Your task to perform on an android device: add a contact in the contacts app Image 0: 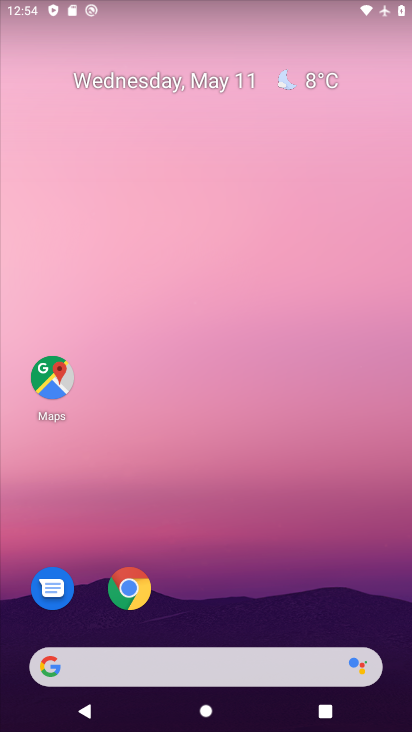
Step 0: drag from (318, 548) to (364, 270)
Your task to perform on an android device: add a contact in the contacts app Image 1: 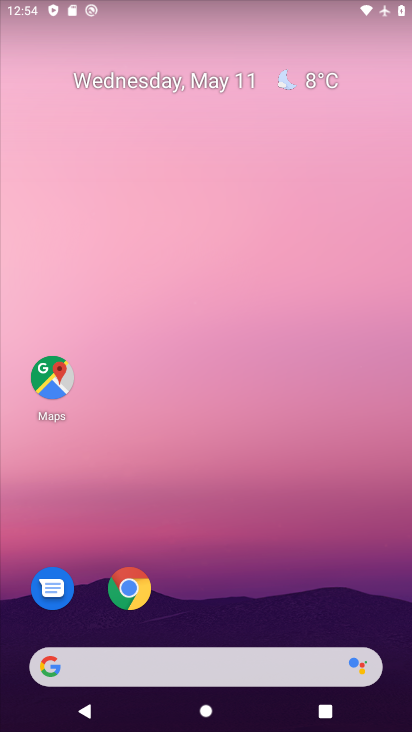
Step 1: drag from (221, 587) to (238, 167)
Your task to perform on an android device: add a contact in the contacts app Image 2: 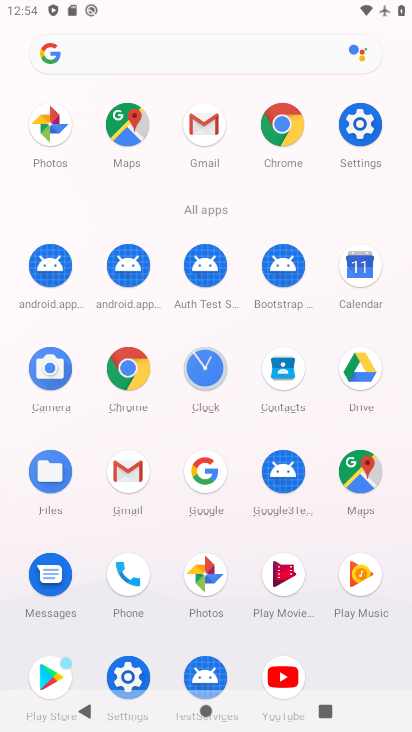
Step 2: click (292, 366)
Your task to perform on an android device: add a contact in the contacts app Image 3: 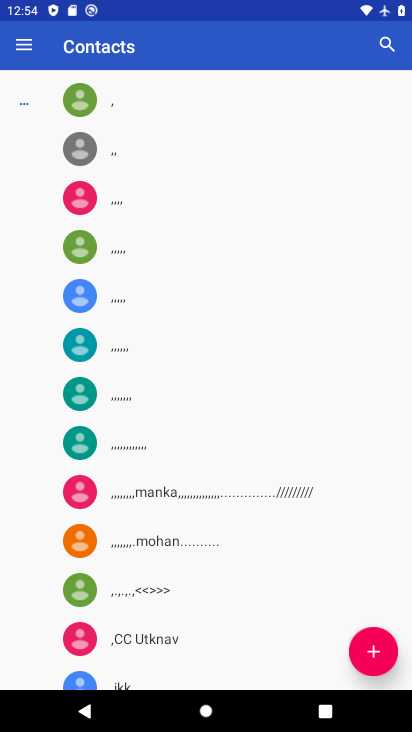
Step 3: click (365, 664)
Your task to perform on an android device: add a contact in the contacts app Image 4: 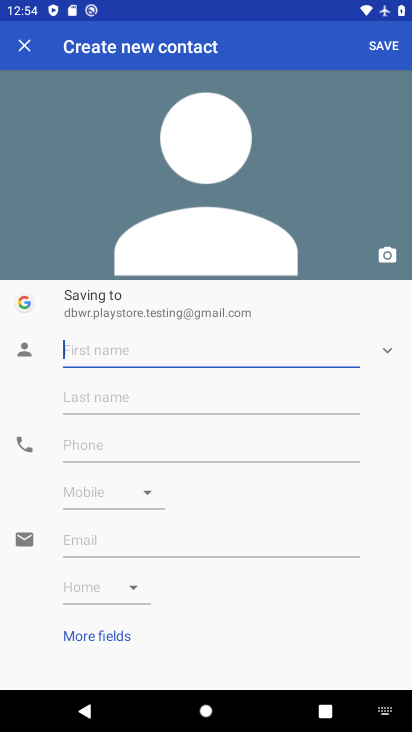
Step 4: click (261, 330)
Your task to perform on an android device: add a contact in the contacts app Image 5: 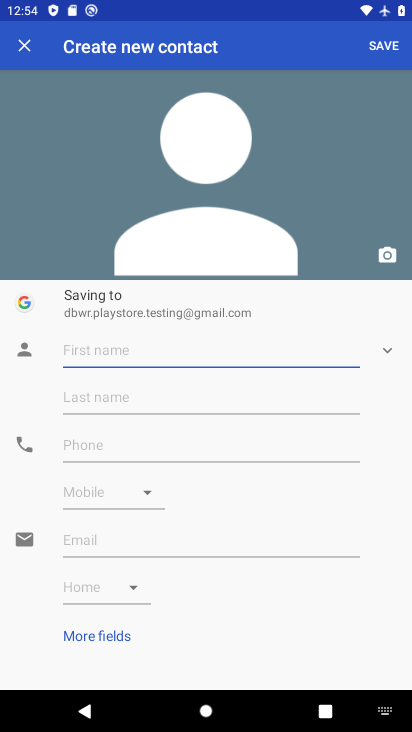
Step 5: type "connection no.2"
Your task to perform on an android device: add a contact in the contacts app Image 6: 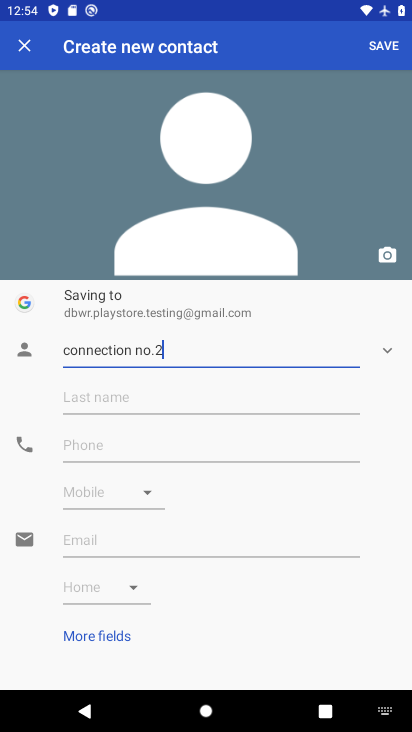
Step 6: click (136, 450)
Your task to perform on an android device: add a contact in the contacts app Image 7: 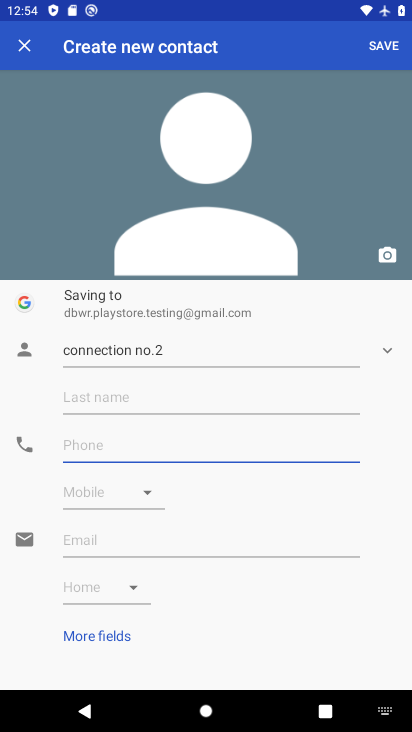
Step 7: type "9898765676"
Your task to perform on an android device: add a contact in the contacts app Image 8: 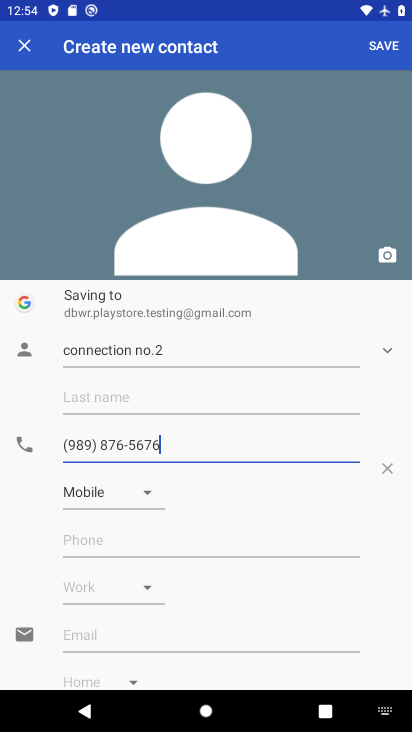
Step 8: click (395, 52)
Your task to perform on an android device: add a contact in the contacts app Image 9: 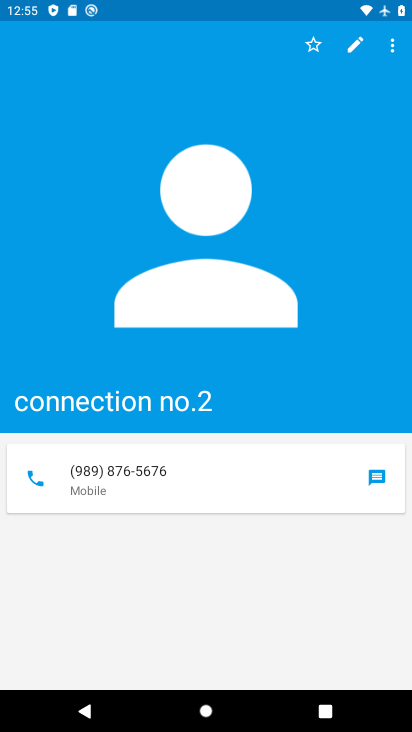
Step 9: task complete